Your task to perform on an android device: Open Chrome and go to settings Image 0: 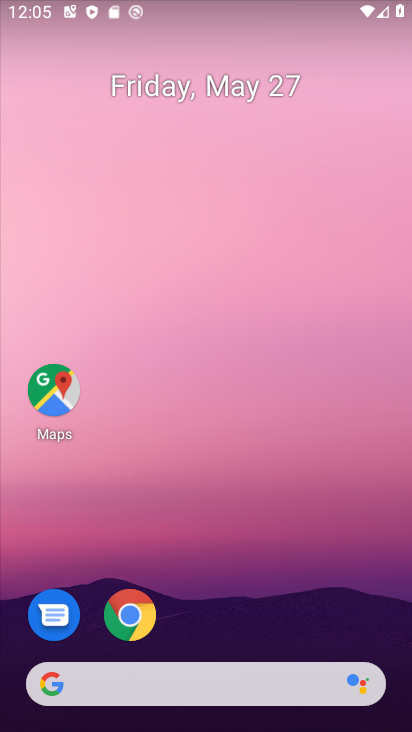
Step 0: drag from (258, 689) to (289, 172)
Your task to perform on an android device: Open Chrome and go to settings Image 1: 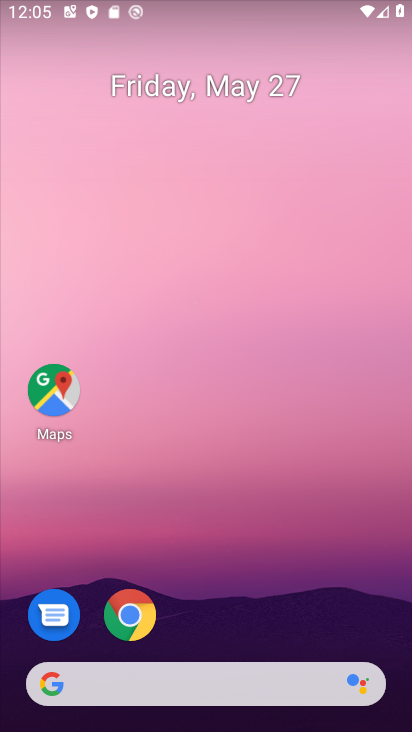
Step 1: drag from (149, 667) to (247, 36)
Your task to perform on an android device: Open Chrome and go to settings Image 2: 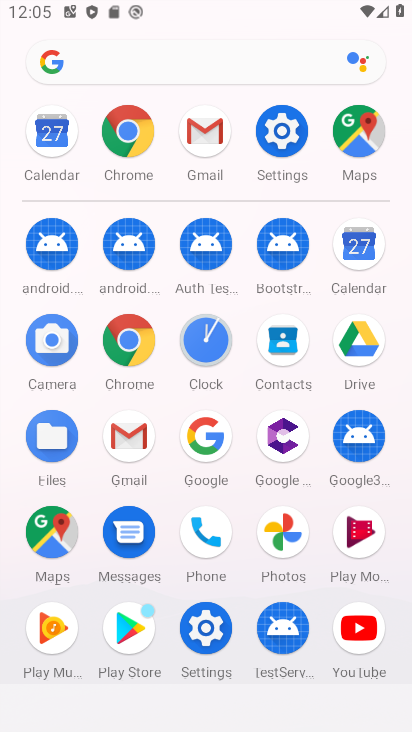
Step 2: click (123, 327)
Your task to perform on an android device: Open Chrome and go to settings Image 3: 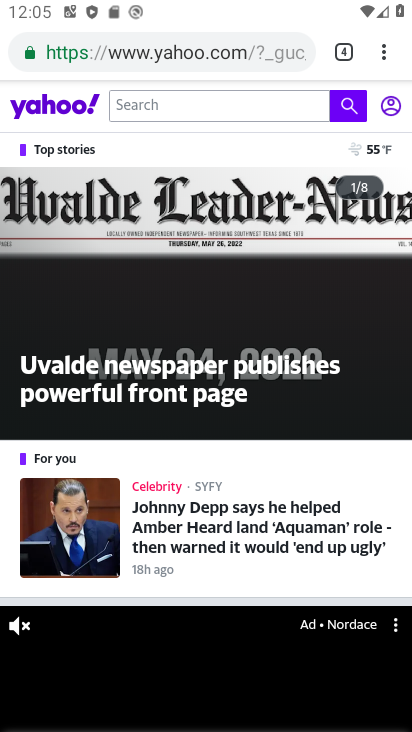
Step 3: task complete